Your task to perform on an android device: Open Maps and search for coffee Image 0: 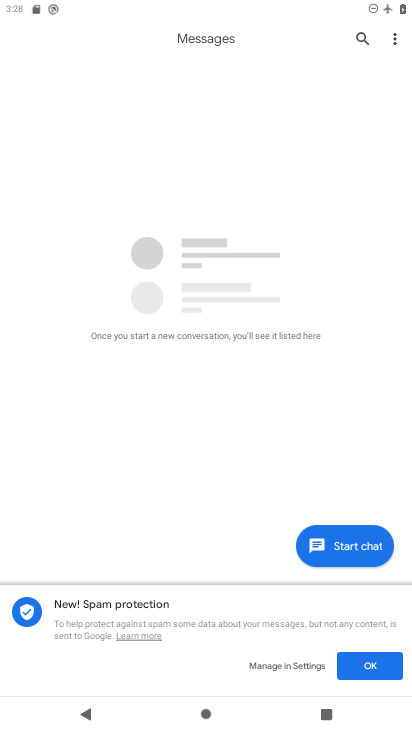
Step 0: press home button
Your task to perform on an android device: Open Maps and search for coffee Image 1: 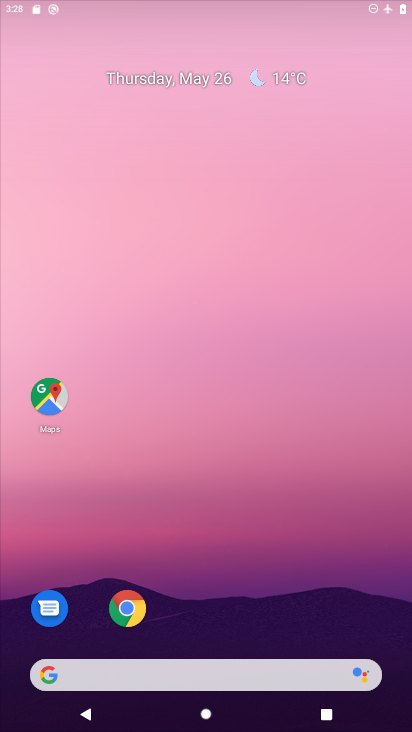
Step 1: drag from (321, 562) to (282, 21)
Your task to perform on an android device: Open Maps and search for coffee Image 2: 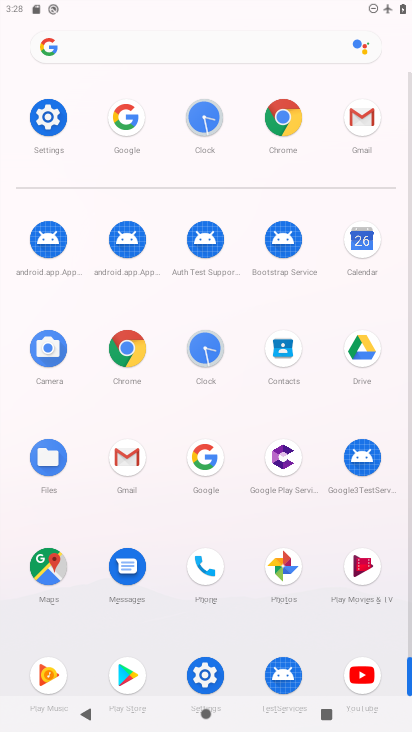
Step 2: click (45, 572)
Your task to perform on an android device: Open Maps and search for coffee Image 3: 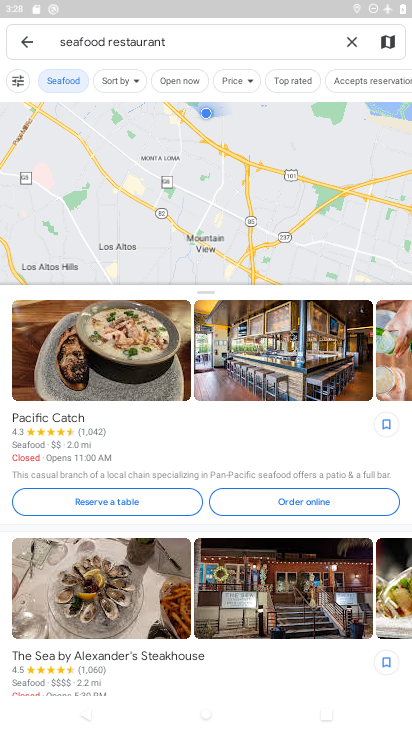
Step 3: click (219, 40)
Your task to perform on an android device: Open Maps and search for coffee Image 4: 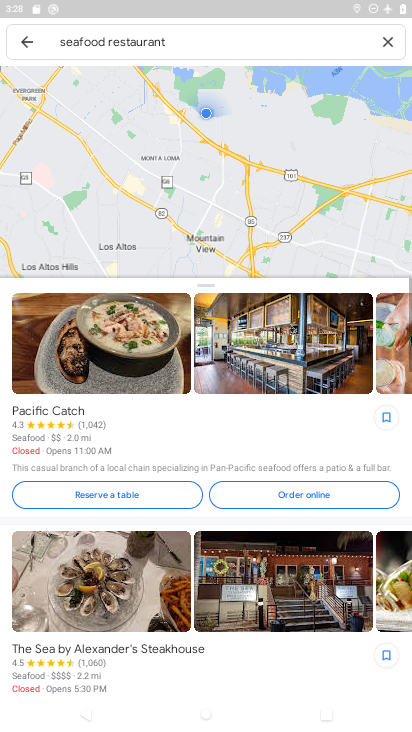
Step 4: click (350, 41)
Your task to perform on an android device: Open Maps and search for coffee Image 5: 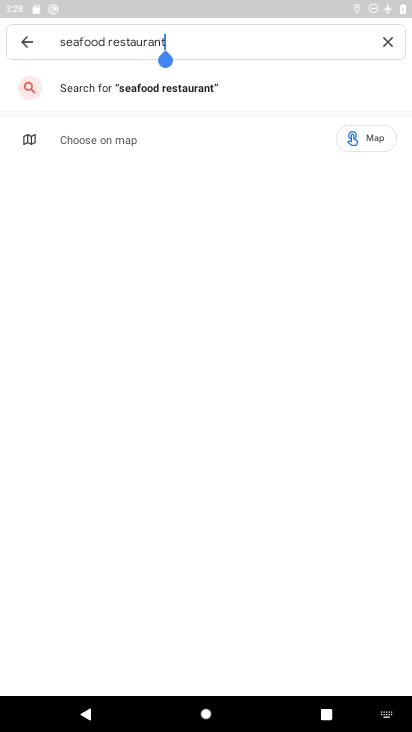
Step 5: click (388, 45)
Your task to perform on an android device: Open Maps and search for coffee Image 6: 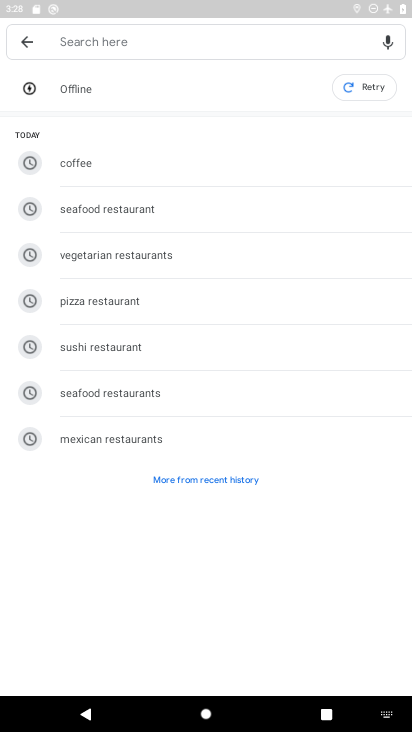
Step 6: click (118, 163)
Your task to perform on an android device: Open Maps and search for coffee Image 7: 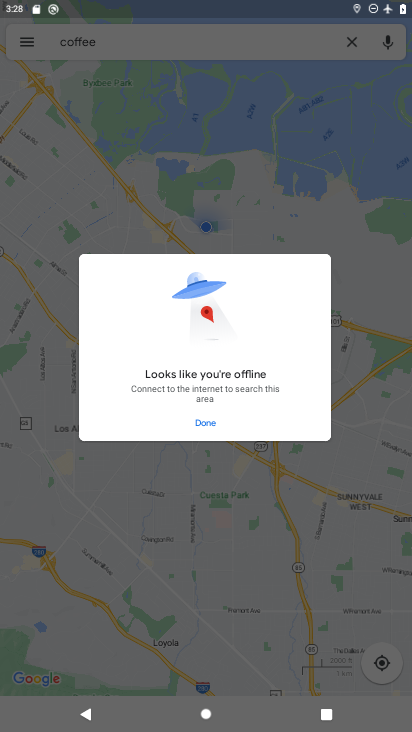
Step 7: task complete